Your task to perform on an android device: What's the weather going to be tomorrow? Image 0: 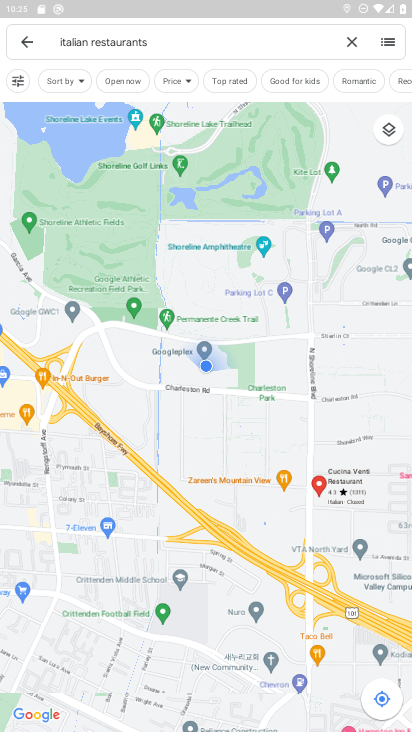
Step 0: press home button
Your task to perform on an android device: What's the weather going to be tomorrow? Image 1: 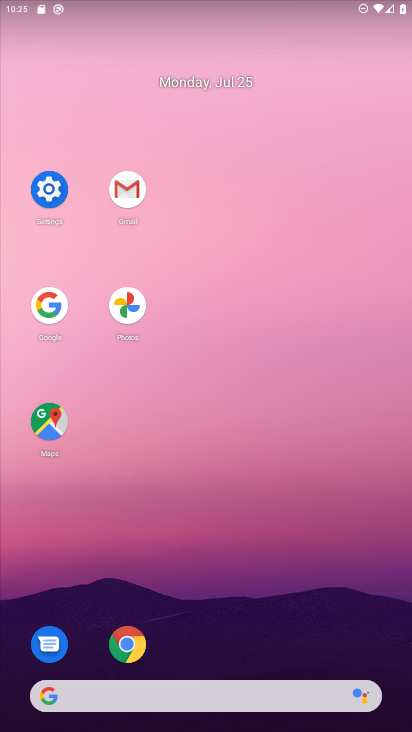
Step 1: click (57, 307)
Your task to perform on an android device: What's the weather going to be tomorrow? Image 2: 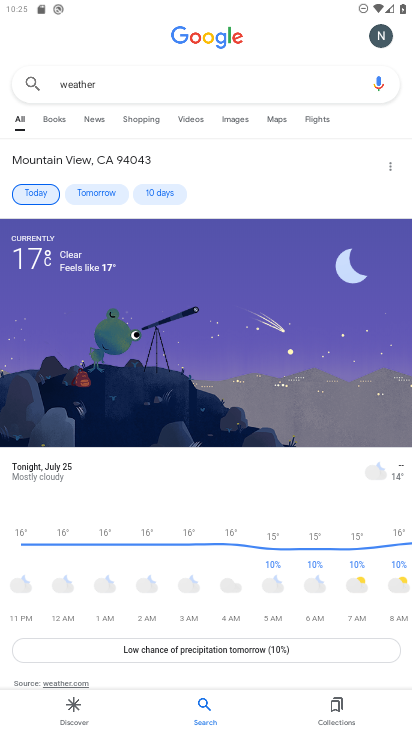
Step 2: click (86, 192)
Your task to perform on an android device: What's the weather going to be tomorrow? Image 3: 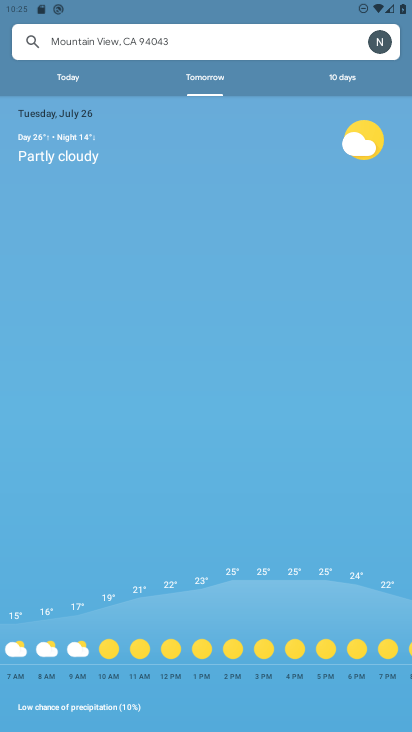
Step 3: task complete